Your task to perform on an android device: open a bookmark in the chrome app Image 0: 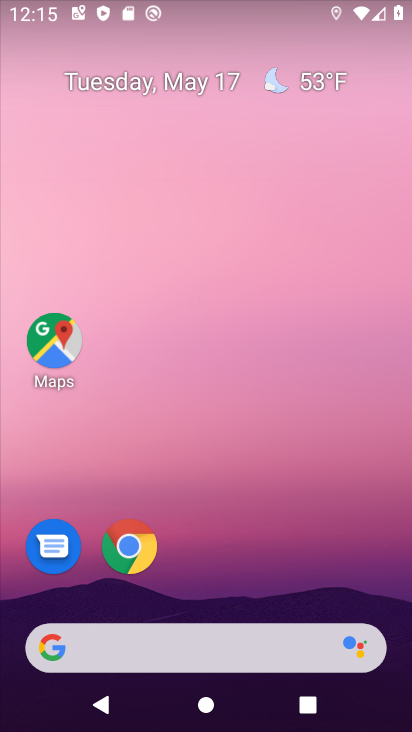
Step 0: click (130, 542)
Your task to perform on an android device: open a bookmark in the chrome app Image 1: 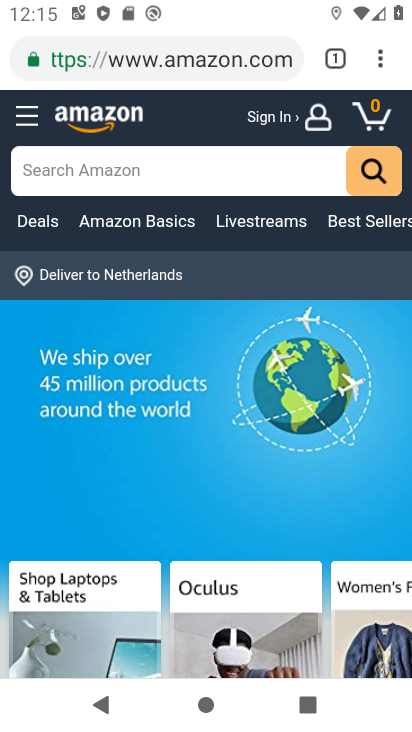
Step 1: click (370, 59)
Your task to perform on an android device: open a bookmark in the chrome app Image 2: 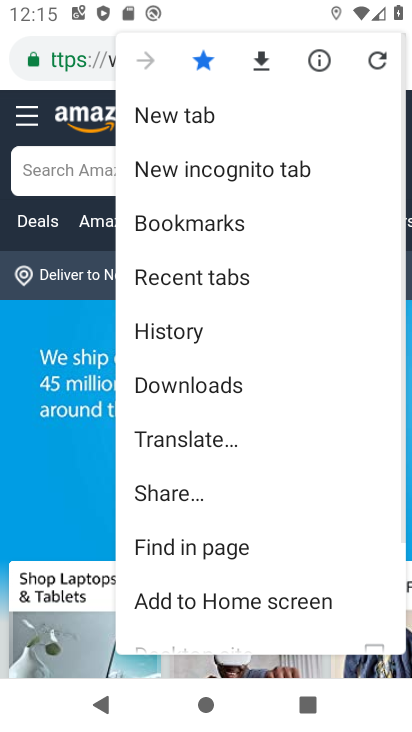
Step 2: click (217, 231)
Your task to perform on an android device: open a bookmark in the chrome app Image 3: 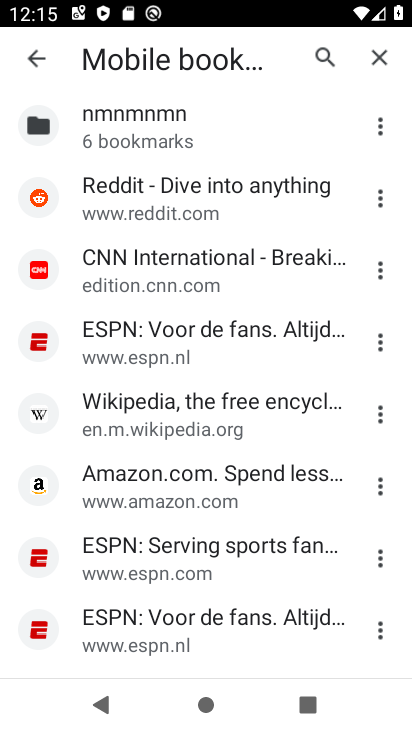
Step 3: click (156, 419)
Your task to perform on an android device: open a bookmark in the chrome app Image 4: 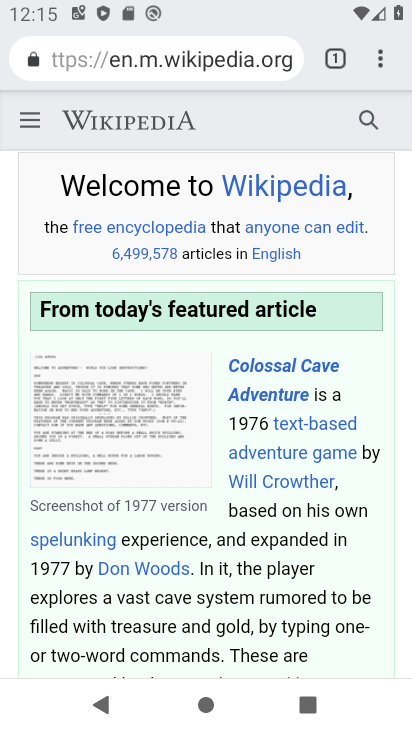
Step 4: task complete